Your task to perform on an android device: toggle sleep mode Image 0: 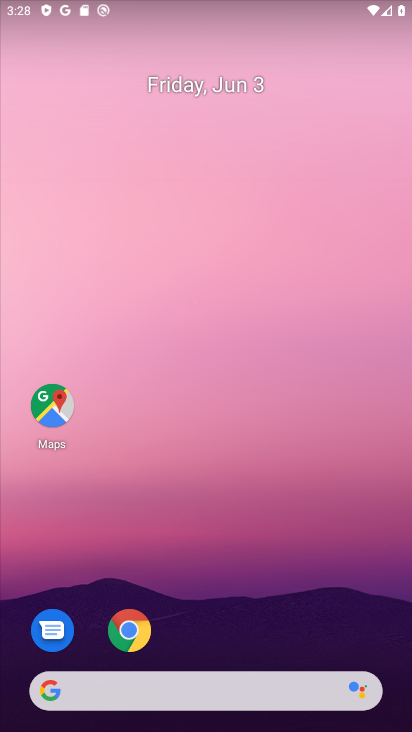
Step 0: click (136, 109)
Your task to perform on an android device: toggle sleep mode Image 1: 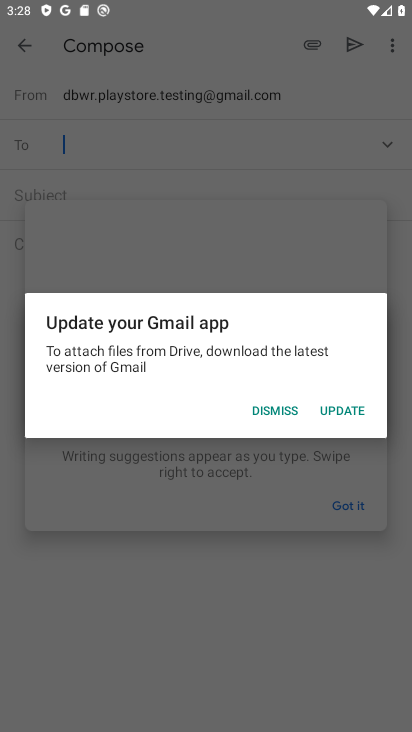
Step 1: drag from (241, 675) to (165, 141)
Your task to perform on an android device: toggle sleep mode Image 2: 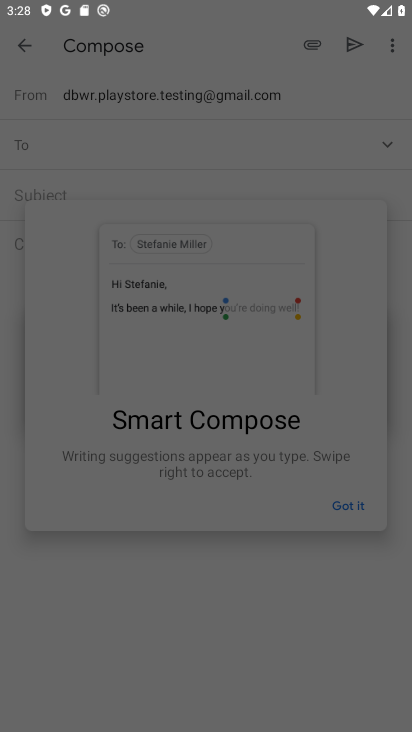
Step 2: press back button
Your task to perform on an android device: toggle sleep mode Image 3: 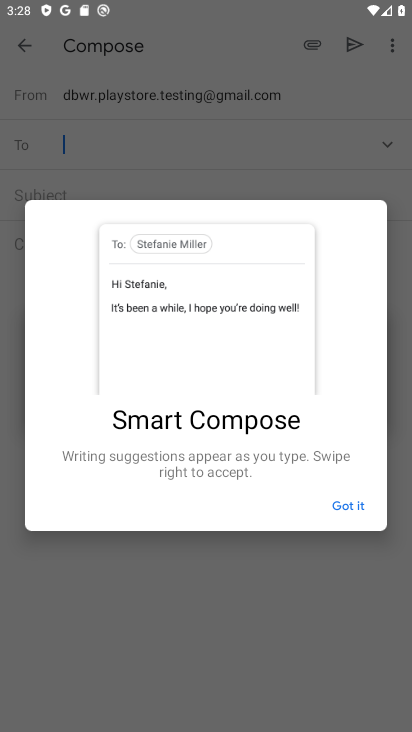
Step 3: click (337, 497)
Your task to perform on an android device: toggle sleep mode Image 4: 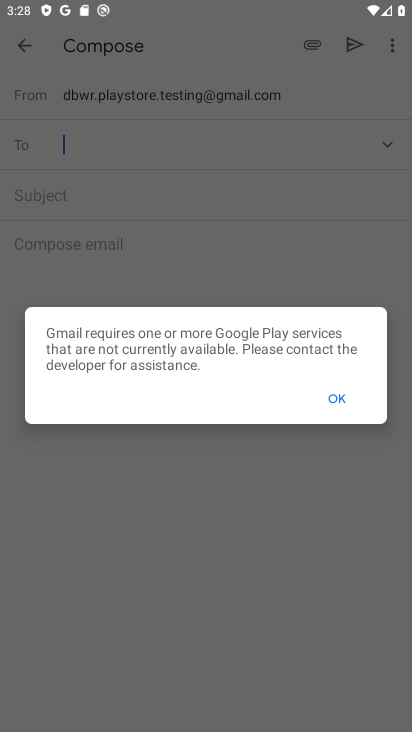
Step 4: click (336, 401)
Your task to perform on an android device: toggle sleep mode Image 5: 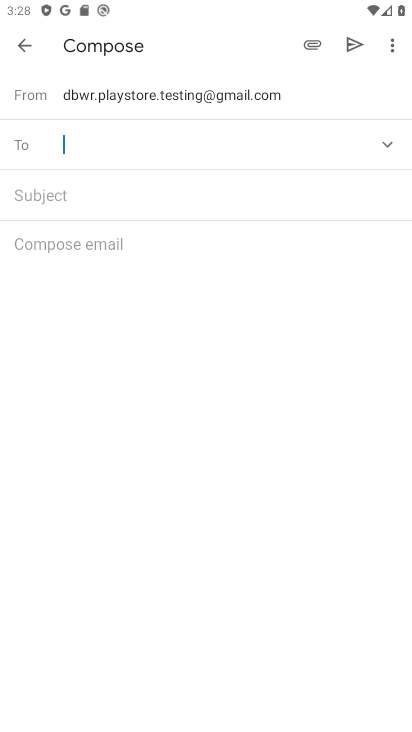
Step 5: click (20, 49)
Your task to perform on an android device: toggle sleep mode Image 6: 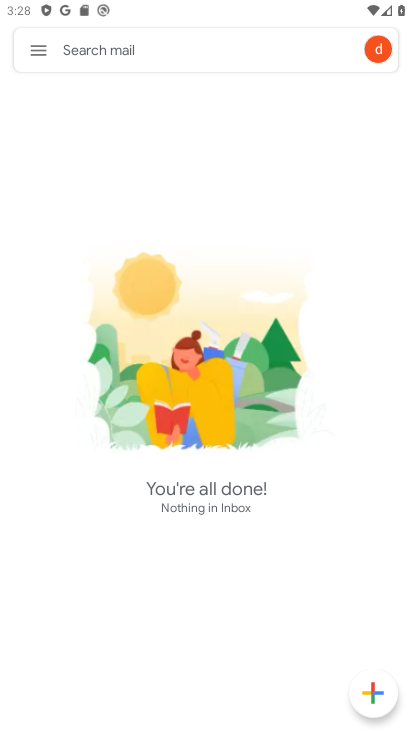
Step 6: press home button
Your task to perform on an android device: toggle sleep mode Image 7: 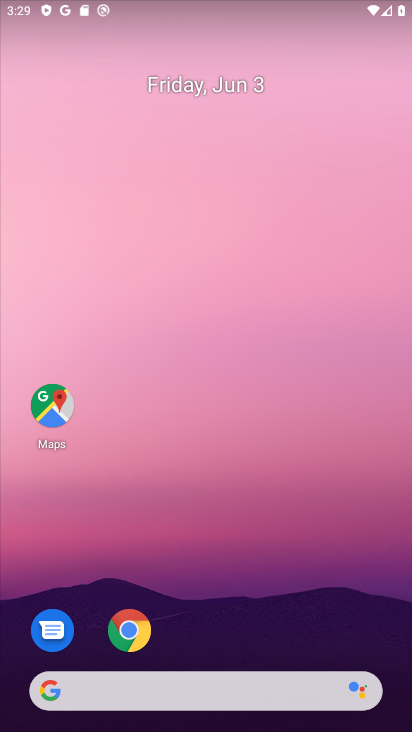
Step 7: drag from (239, 654) to (192, 112)
Your task to perform on an android device: toggle sleep mode Image 8: 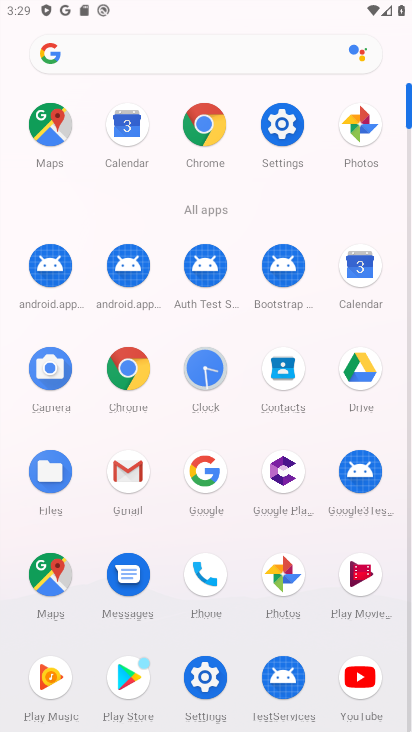
Step 8: click (265, 126)
Your task to perform on an android device: toggle sleep mode Image 9: 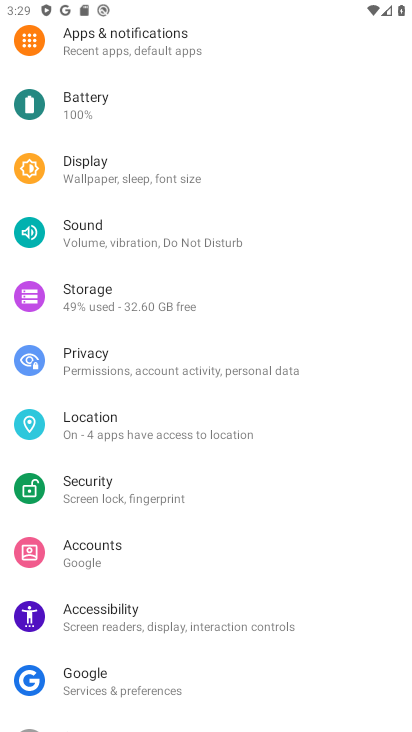
Step 9: click (93, 157)
Your task to perform on an android device: toggle sleep mode Image 10: 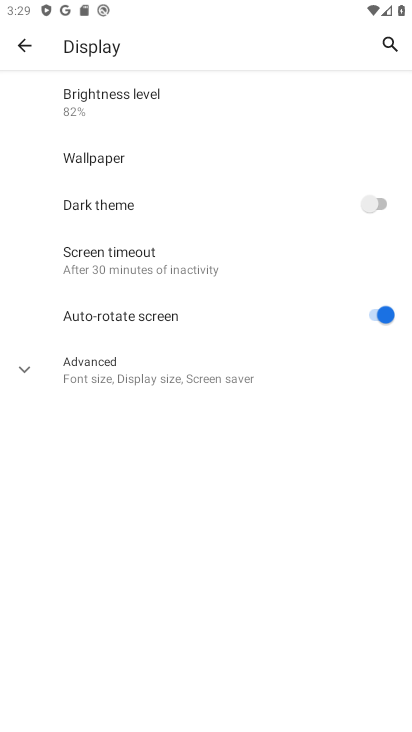
Step 10: click (98, 264)
Your task to perform on an android device: toggle sleep mode Image 11: 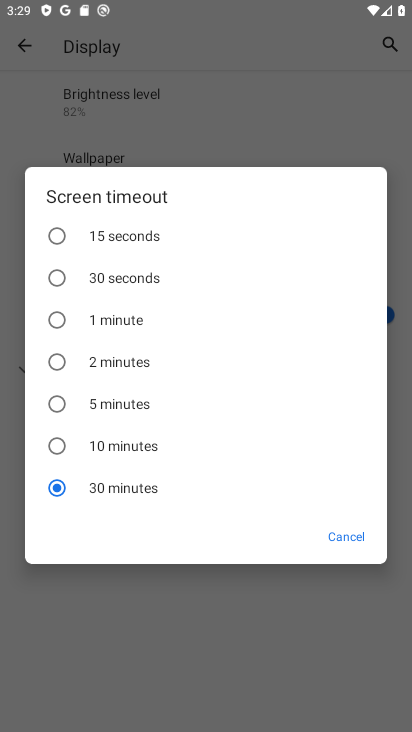
Step 11: click (50, 365)
Your task to perform on an android device: toggle sleep mode Image 12: 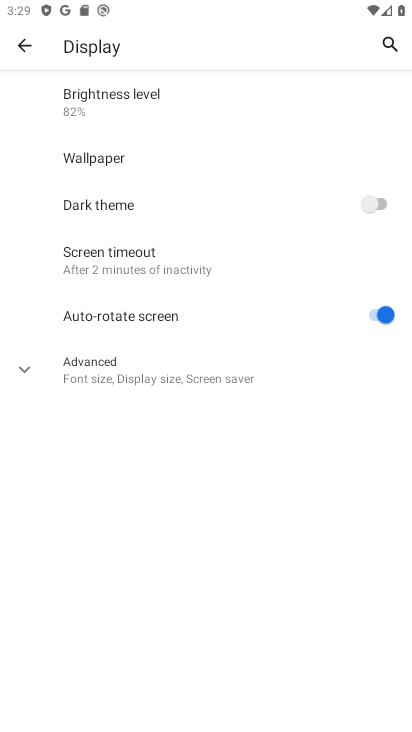
Step 12: task complete